Your task to perform on an android device: open the mobile data screen to see how much data has been used Image 0: 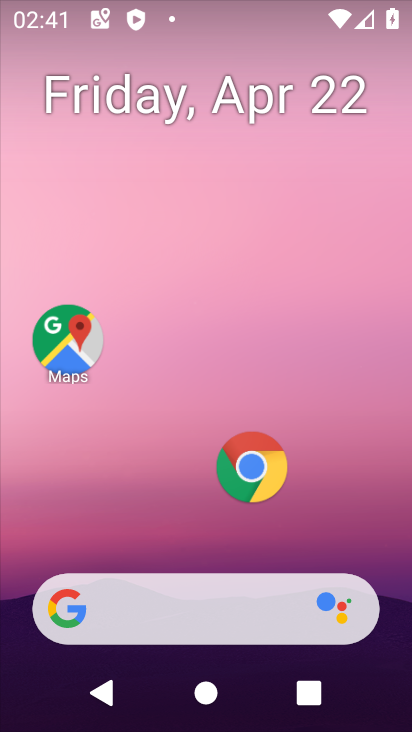
Step 0: drag from (191, 496) to (201, 61)
Your task to perform on an android device: open the mobile data screen to see how much data has been used Image 1: 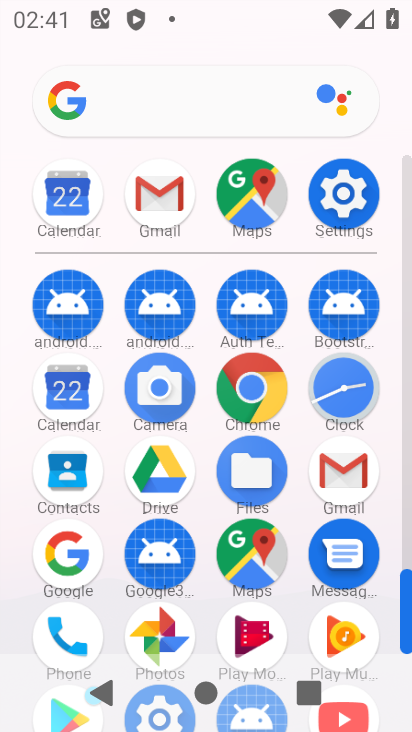
Step 1: click (342, 197)
Your task to perform on an android device: open the mobile data screen to see how much data has been used Image 2: 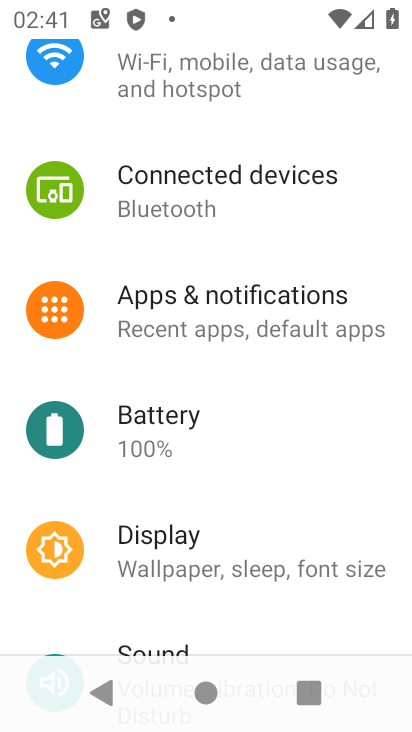
Step 2: drag from (189, 566) to (207, 161)
Your task to perform on an android device: open the mobile data screen to see how much data has been used Image 3: 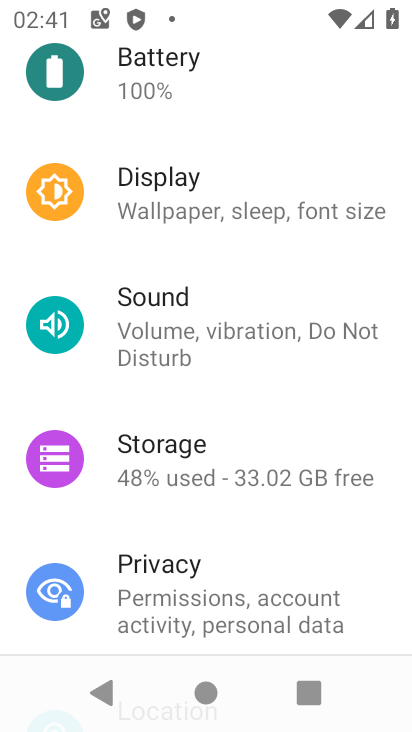
Step 3: drag from (226, 199) to (262, 518)
Your task to perform on an android device: open the mobile data screen to see how much data has been used Image 4: 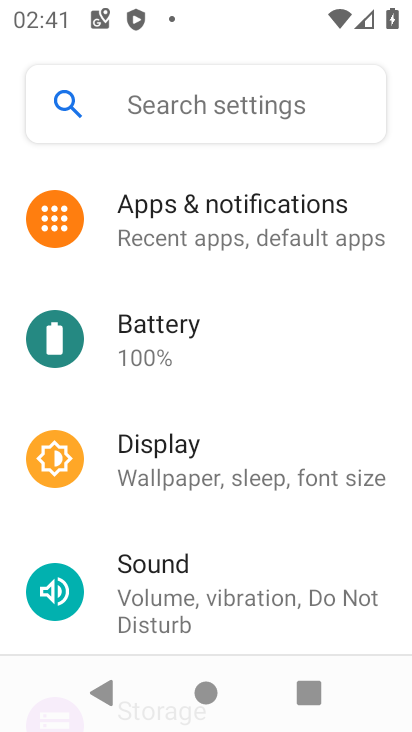
Step 4: drag from (202, 219) to (250, 666)
Your task to perform on an android device: open the mobile data screen to see how much data has been used Image 5: 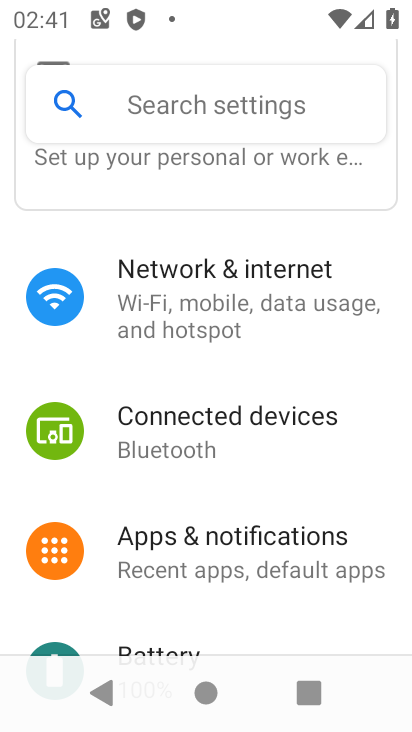
Step 5: click (197, 304)
Your task to perform on an android device: open the mobile data screen to see how much data has been used Image 6: 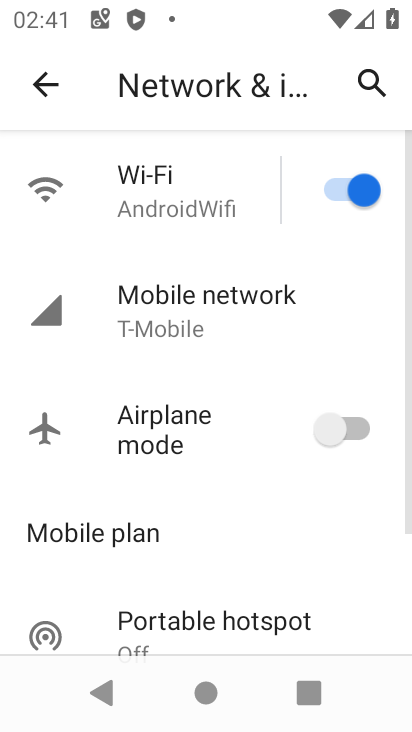
Step 6: click (193, 310)
Your task to perform on an android device: open the mobile data screen to see how much data has been used Image 7: 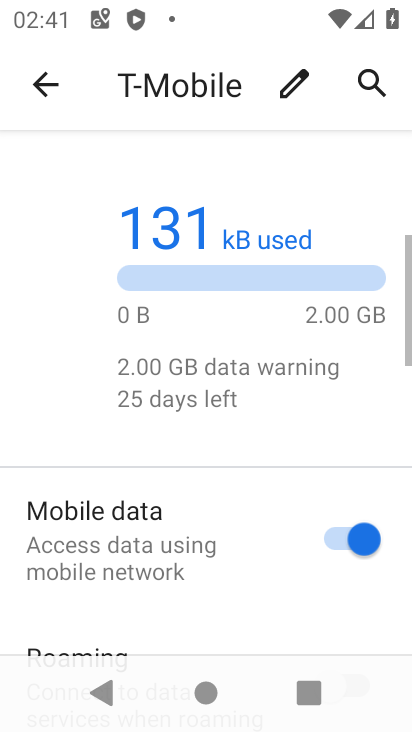
Step 7: task complete